Your task to perform on an android device: Open Reddit.com Image 0: 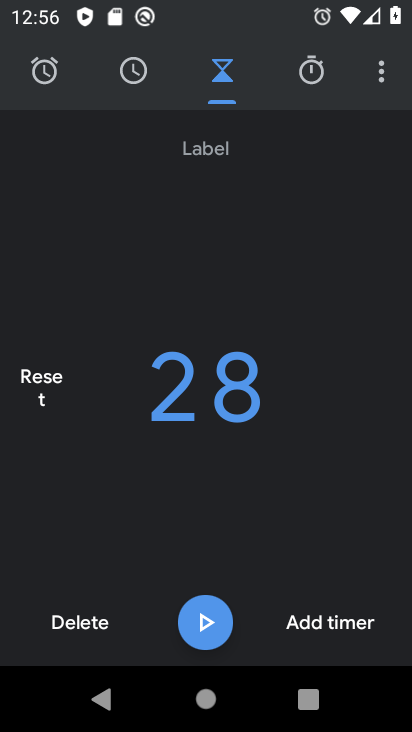
Step 0: press back button
Your task to perform on an android device: Open Reddit.com Image 1: 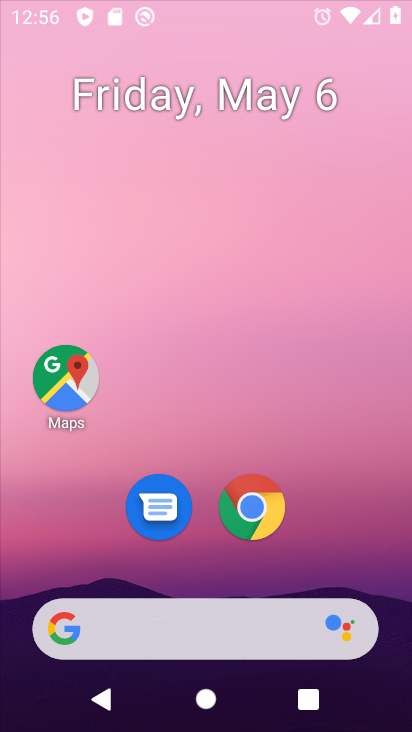
Step 1: press home button
Your task to perform on an android device: Open Reddit.com Image 2: 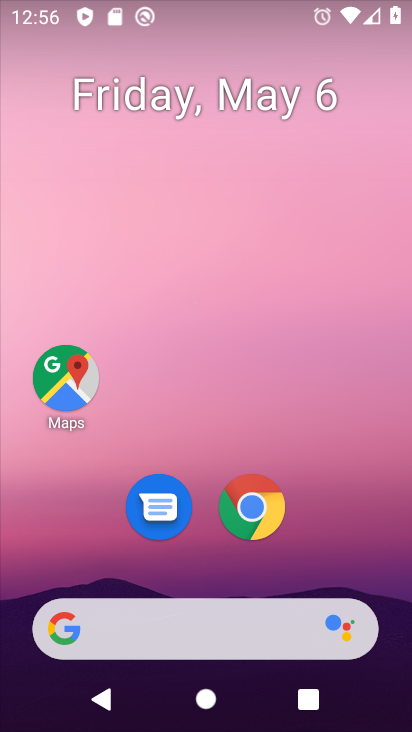
Step 2: drag from (132, 596) to (236, 139)
Your task to perform on an android device: Open Reddit.com Image 3: 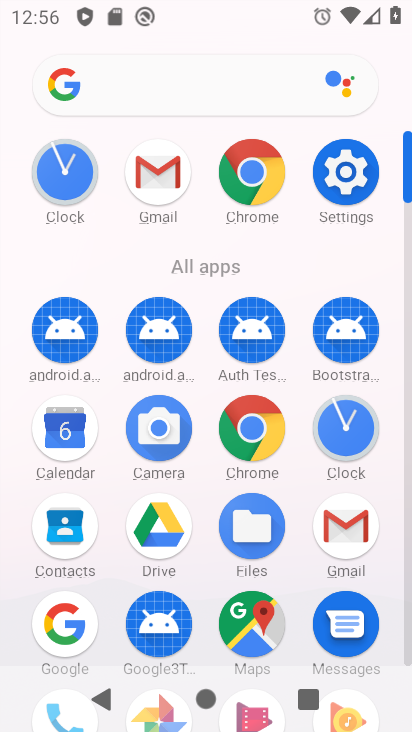
Step 3: drag from (176, 630) to (233, 355)
Your task to perform on an android device: Open Reddit.com Image 4: 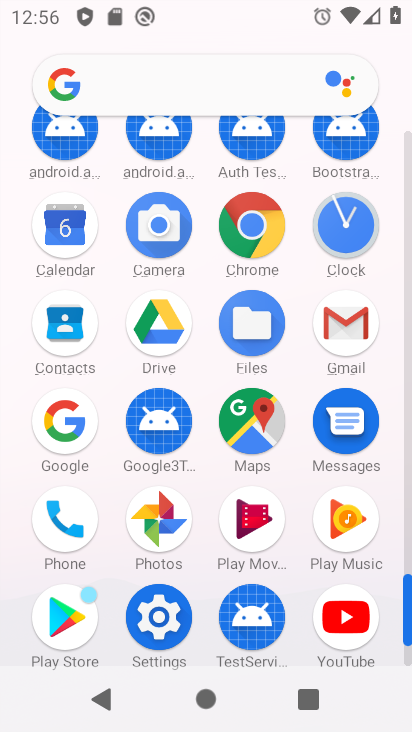
Step 4: click (65, 433)
Your task to perform on an android device: Open Reddit.com Image 5: 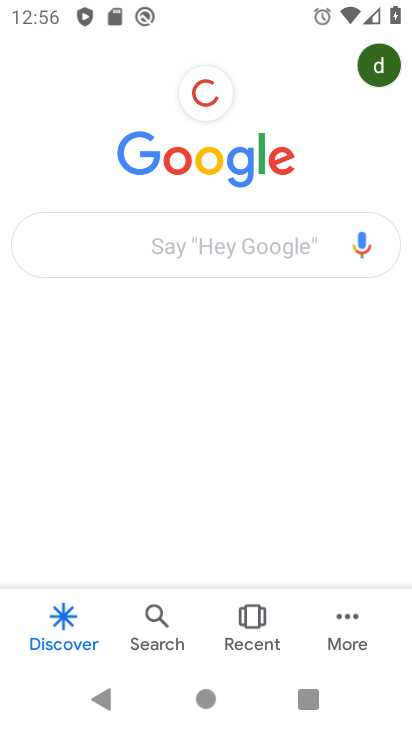
Step 5: click (204, 255)
Your task to perform on an android device: Open Reddit.com Image 6: 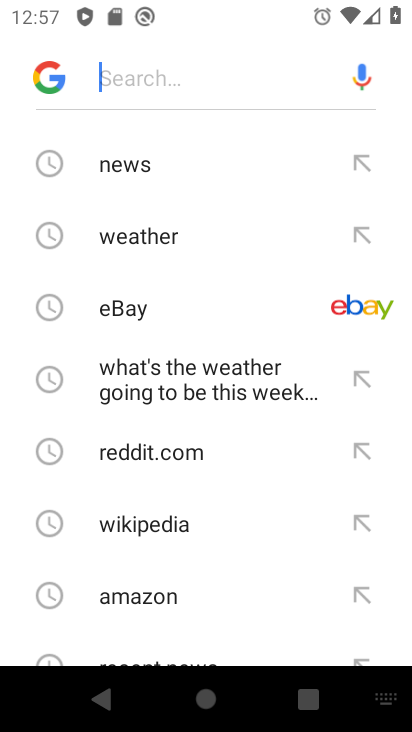
Step 6: type "Reddit.com"
Your task to perform on an android device: Open Reddit.com Image 7: 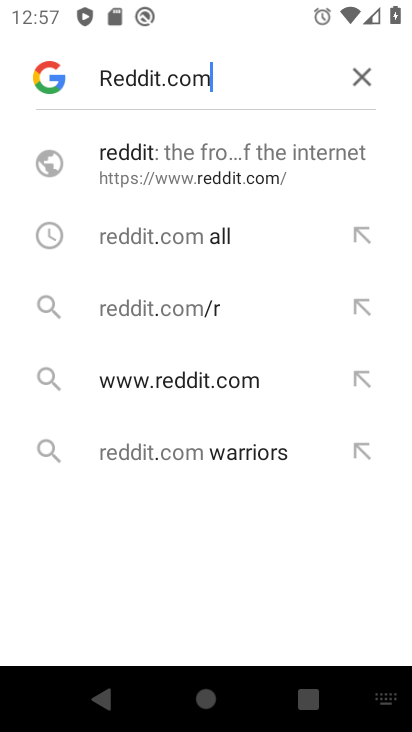
Step 7: click (208, 175)
Your task to perform on an android device: Open Reddit.com Image 8: 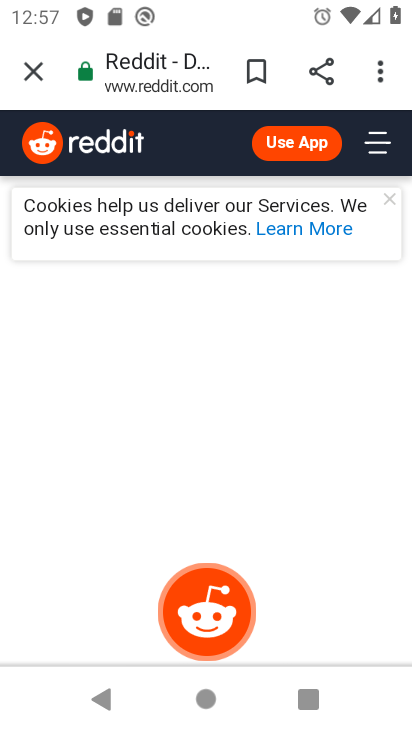
Step 8: task complete